Your task to perform on an android device: check battery use Image 0: 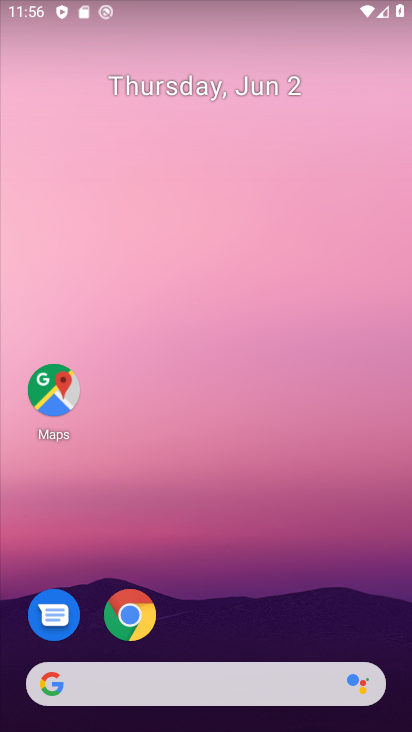
Step 0: drag from (236, 536) to (311, 0)
Your task to perform on an android device: check battery use Image 1: 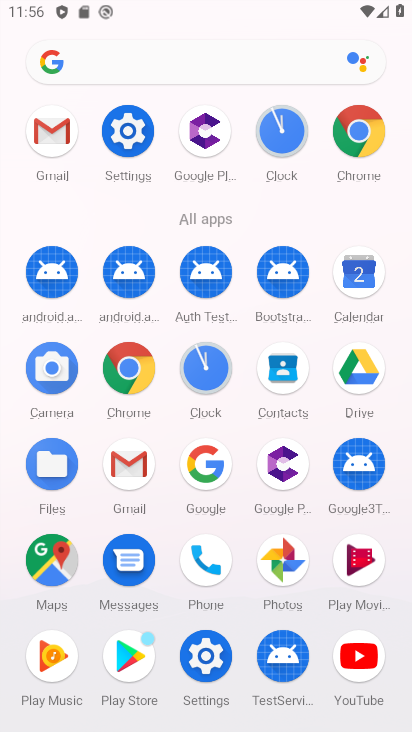
Step 1: click (115, 114)
Your task to perform on an android device: check battery use Image 2: 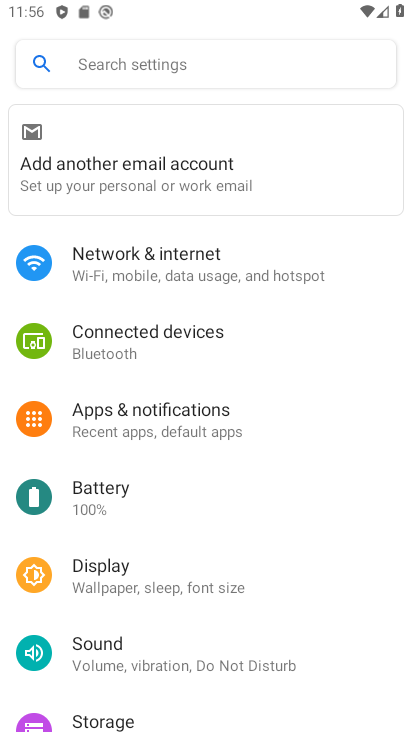
Step 2: click (185, 497)
Your task to perform on an android device: check battery use Image 3: 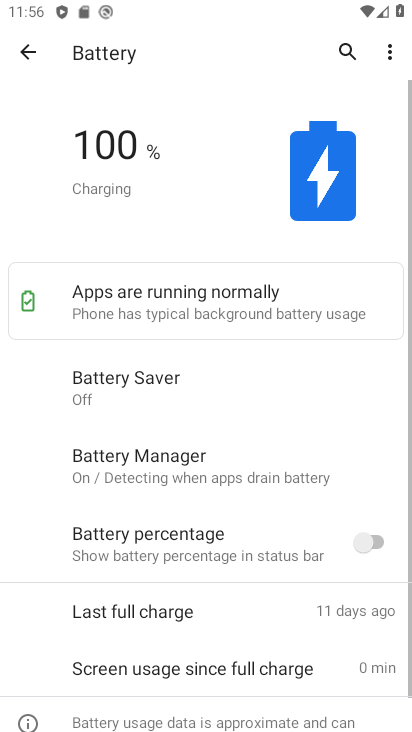
Step 3: click (390, 49)
Your task to perform on an android device: check battery use Image 4: 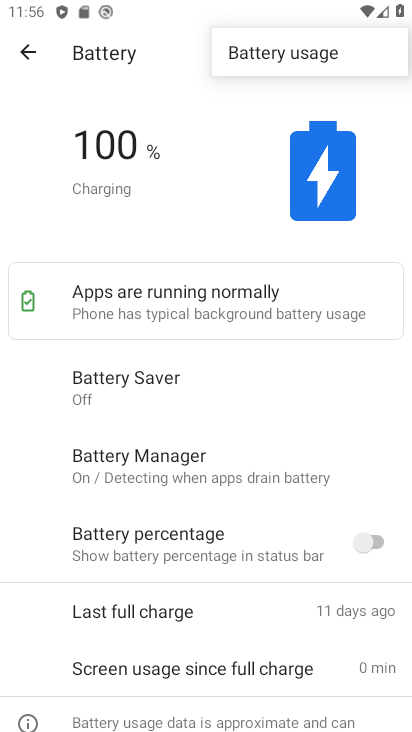
Step 4: click (337, 51)
Your task to perform on an android device: check battery use Image 5: 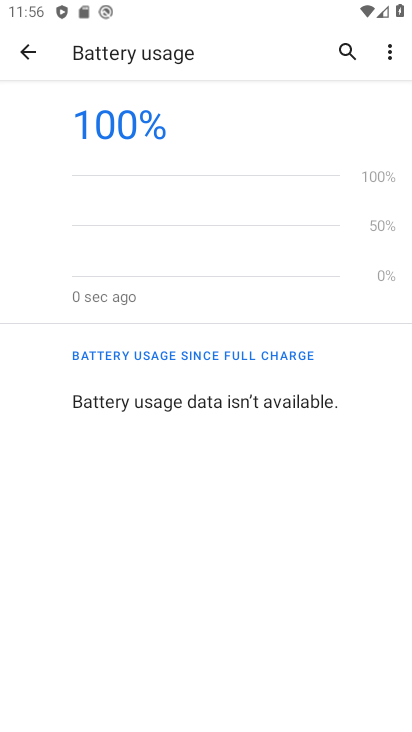
Step 5: task complete